Your task to perform on an android device: toggle improve location accuracy Image 0: 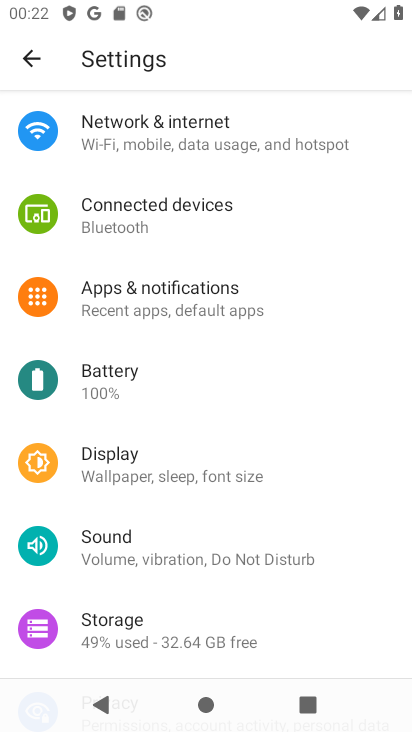
Step 0: press home button
Your task to perform on an android device: toggle improve location accuracy Image 1: 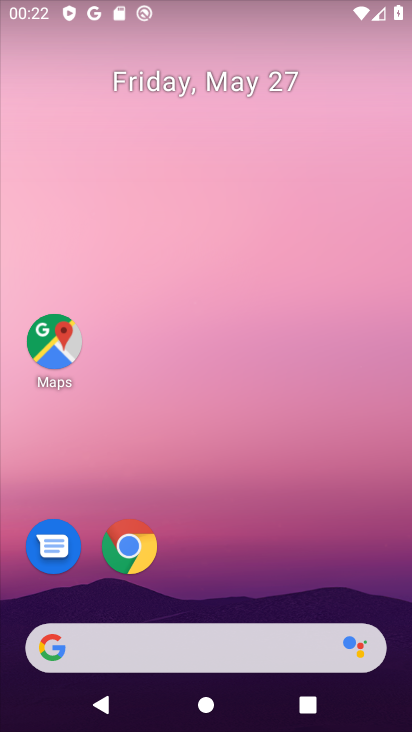
Step 1: drag from (294, 526) to (297, 146)
Your task to perform on an android device: toggle improve location accuracy Image 2: 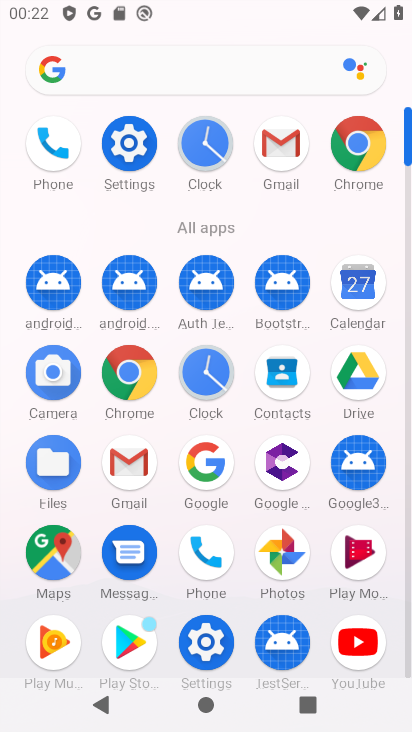
Step 2: click (194, 640)
Your task to perform on an android device: toggle improve location accuracy Image 3: 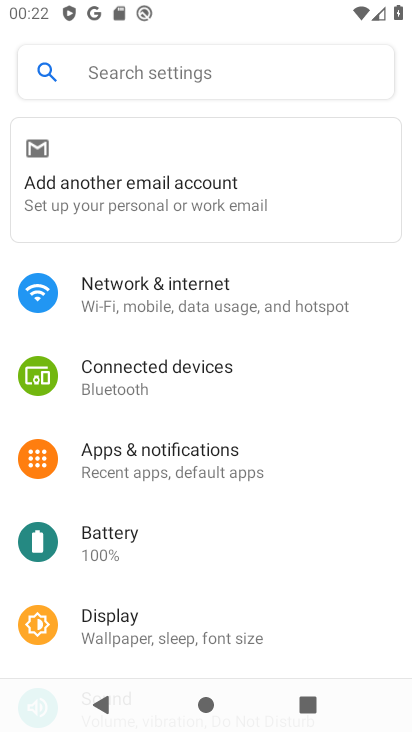
Step 3: drag from (197, 610) to (214, 299)
Your task to perform on an android device: toggle improve location accuracy Image 4: 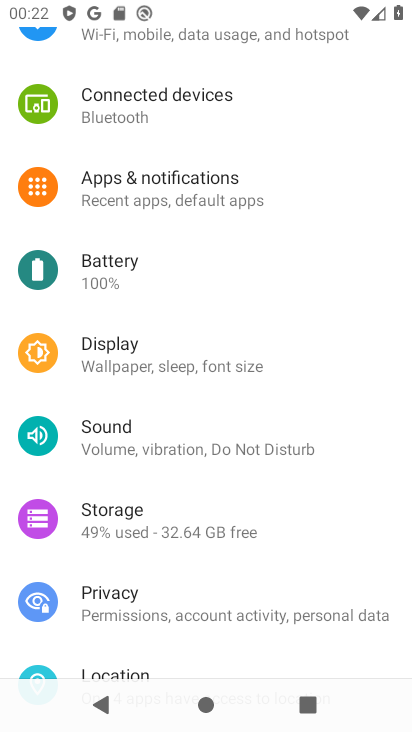
Step 4: click (150, 661)
Your task to perform on an android device: toggle improve location accuracy Image 5: 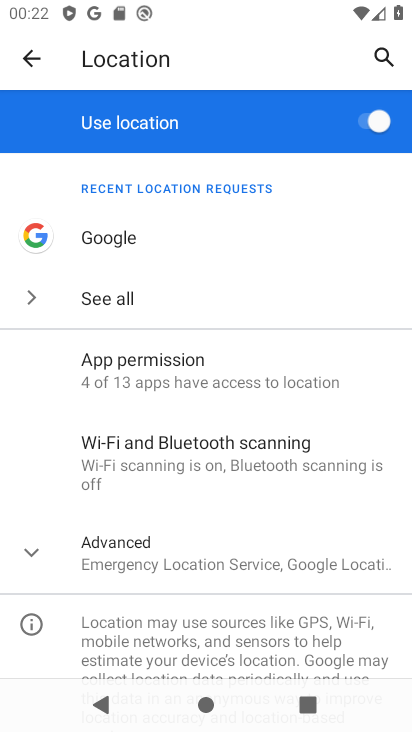
Step 5: click (227, 575)
Your task to perform on an android device: toggle improve location accuracy Image 6: 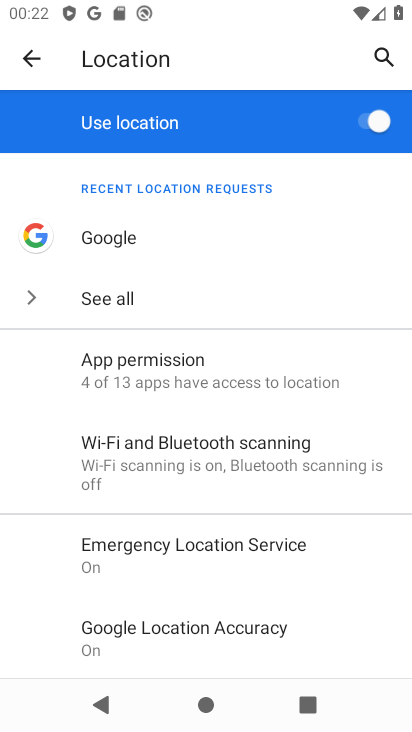
Step 6: drag from (289, 645) to (294, 404)
Your task to perform on an android device: toggle improve location accuracy Image 7: 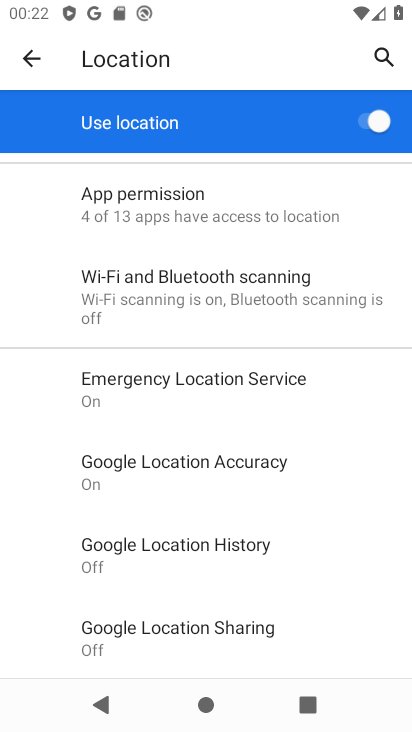
Step 7: click (202, 466)
Your task to perform on an android device: toggle improve location accuracy Image 8: 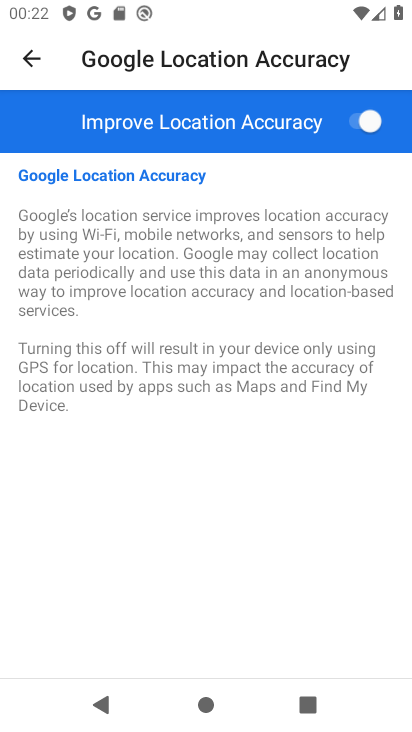
Step 8: click (355, 123)
Your task to perform on an android device: toggle improve location accuracy Image 9: 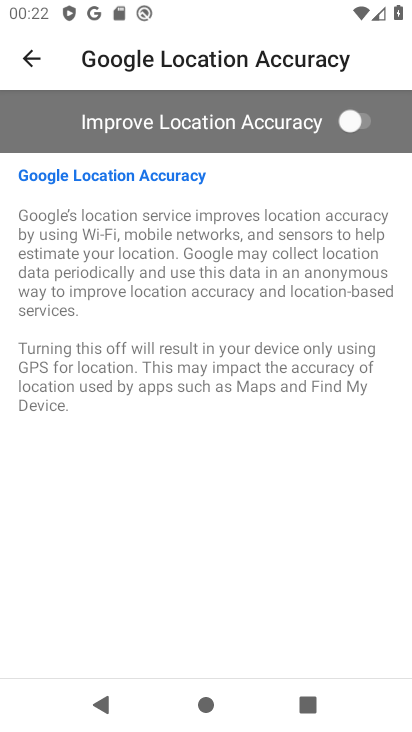
Step 9: task complete